Your task to perform on an android device: Go to Wikipedia Image 0: 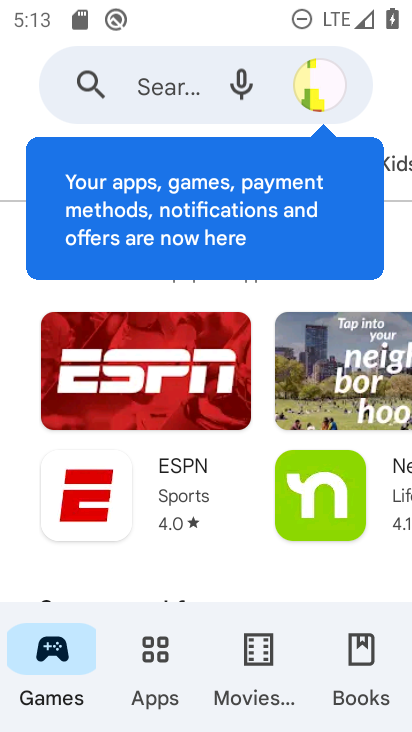
Step 0: press home button
Your task to perform on an android device: Go to Wikipedia Image 1: 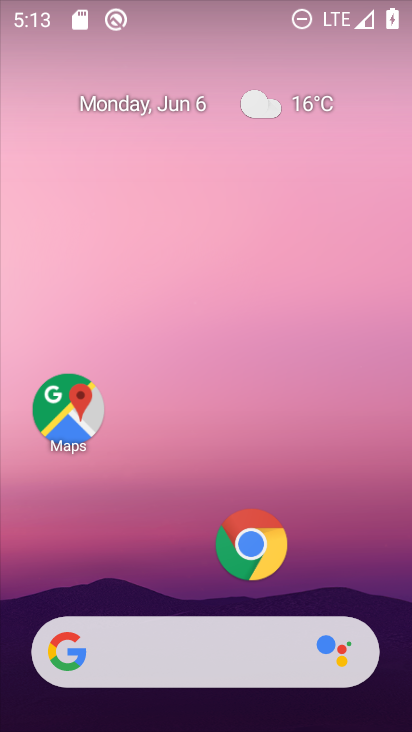
Step 1: drag from (206, 586) to (239, 92)
Your task to perform on an android device: Go to Wikipedia Image 2: 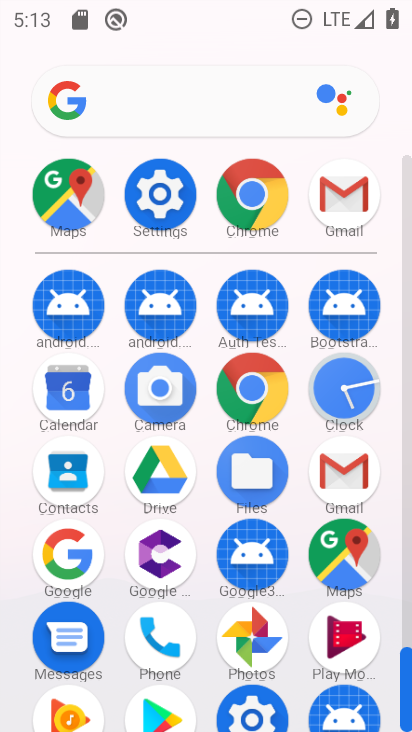
Step 2: click (249, 188)
Your task to perform on an android device: Go to Wikipedia Image 3: 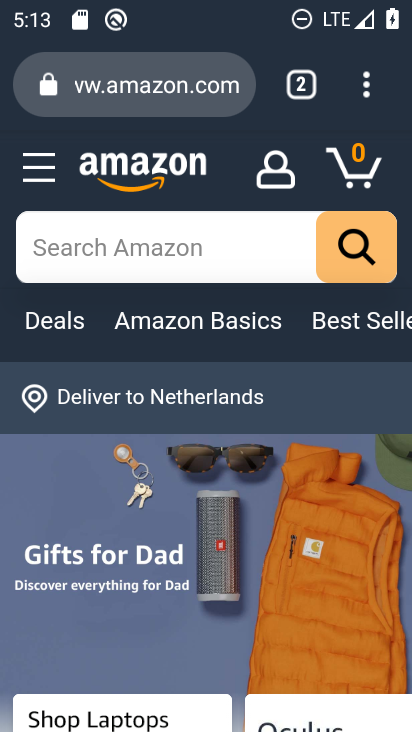
Step 3: click (302, 77)
Your task to perform on an android device: Go to Wikipedia Image 4: 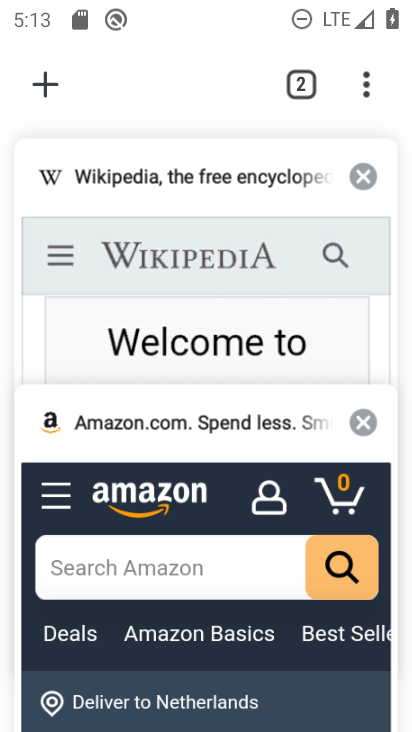
Step 4: click (362, 167)
Your task to perform on an android device: Go to Wikipedia Image 5: 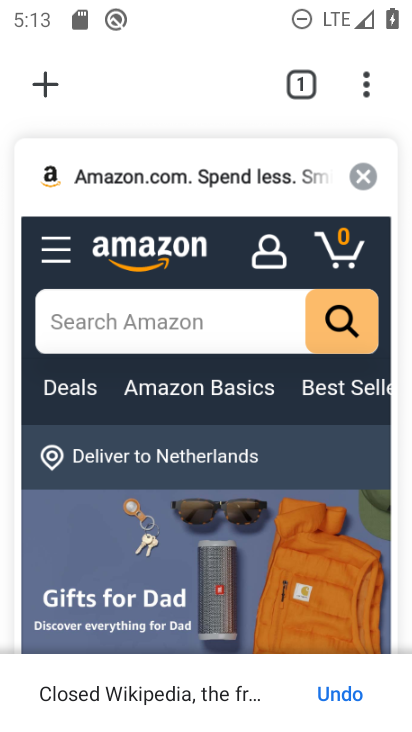
Step 5: click (362, 167)
Your task to perform on an android device: Go to Wikipedia Image 6: 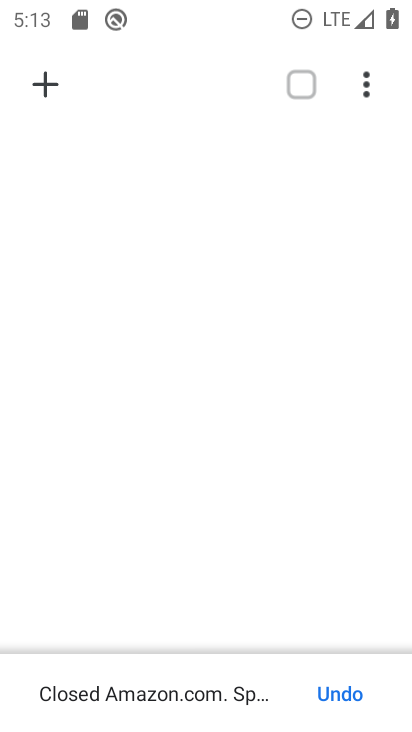
Step 6: click (42, 80)
Your task to perform on an android device: Go to Wikipedia Image 7: 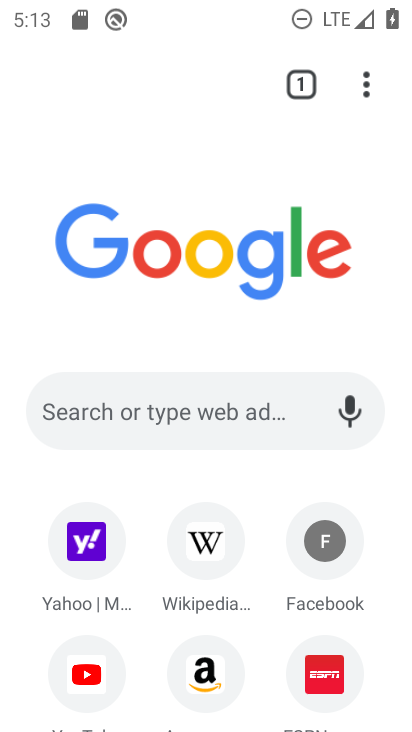
Step 7: click (206, 532)
Your task to perform on an android device: Go to Wikipedia Image 8: 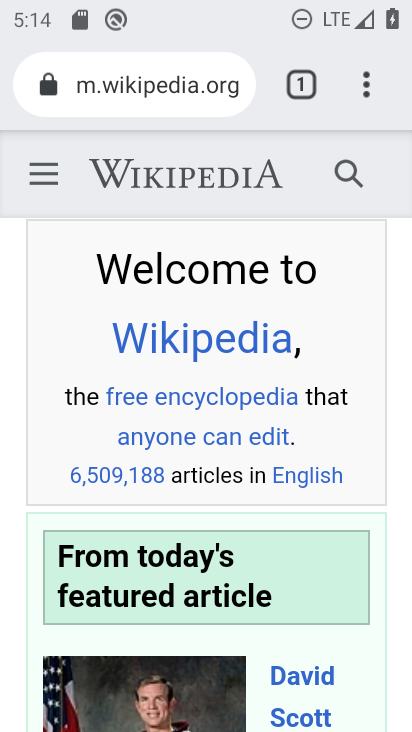
Step 8: task complete